Your task to perform on an android device: Go to display settings Image 0: 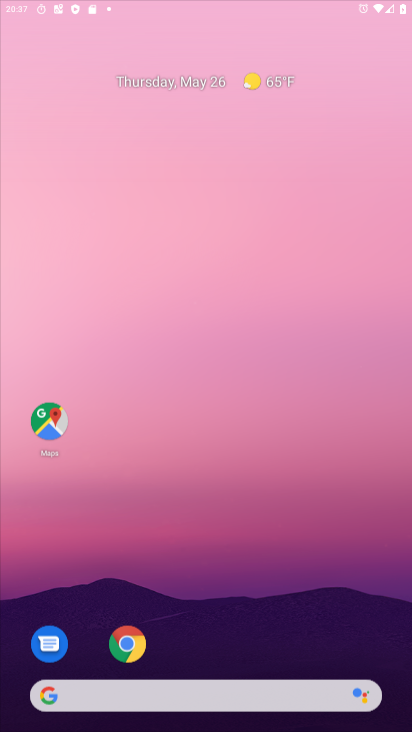
Step 0: click (219, 136)
Your task to perform on an android device: Go to display settings Image 1: 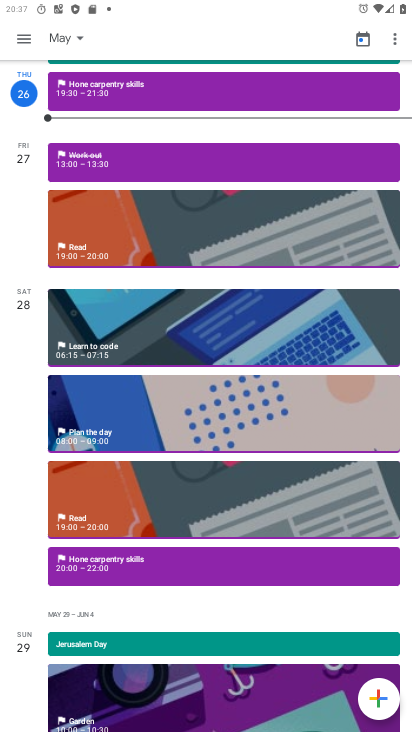
Step 1: press home button
Your task to perform on an android device: Go to display settings Image 2: 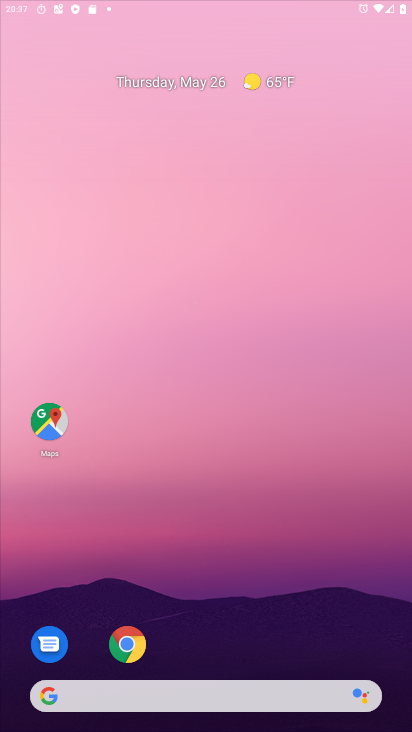
Step 2: drag from (165, 654) to (249, 137)
Your task to perform on an android device: Go to display settings Image 3: 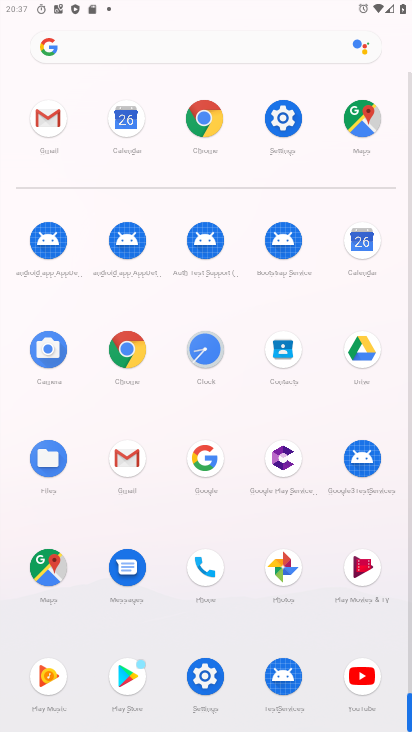
Step 3: click (281, 114)
Your task to perform on an android device: Go to display settings Image 4: 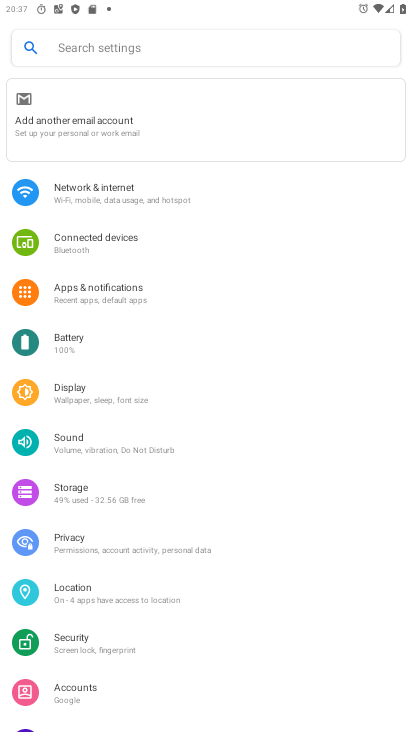
Step 4: click (124, 415)
Your task to perform on an android device: Go to display settings Image 5: 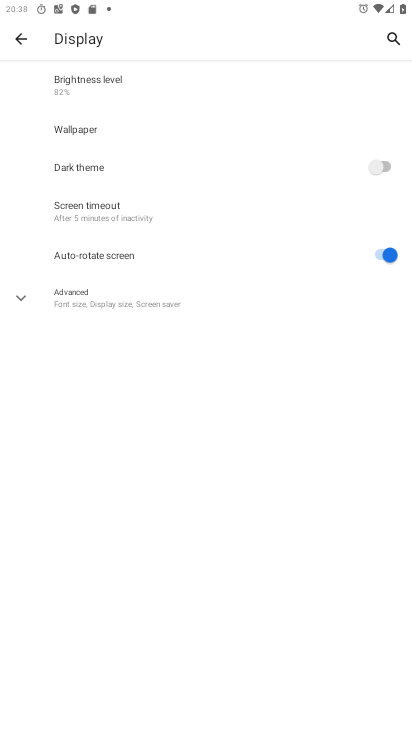
Step 5: task complete